Your task to perform on an android device: change text size in settings app Image 0: 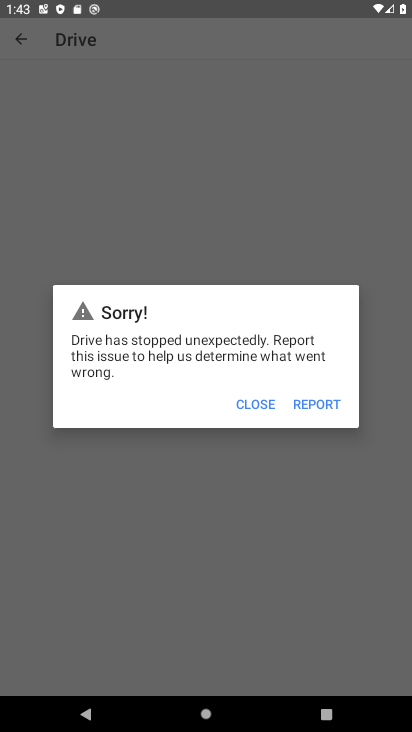
Step 0: press home button
Your task to perform on an android device: change text size in settings app Image 1: 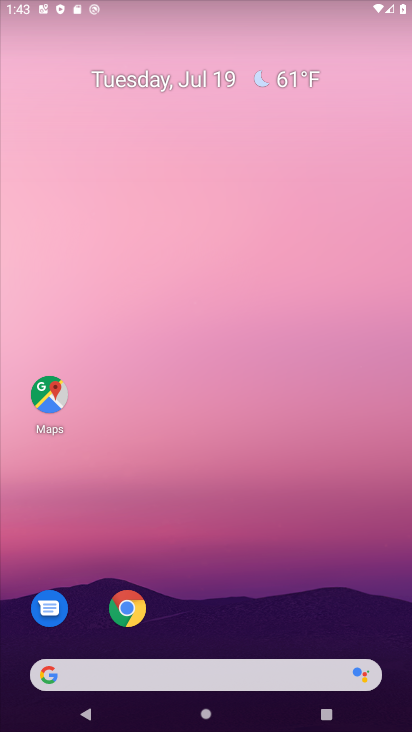
Step 1: drag from (243, 645) to (373, 0)
Your task to perform on an android device: change text size in settings app Image 2: 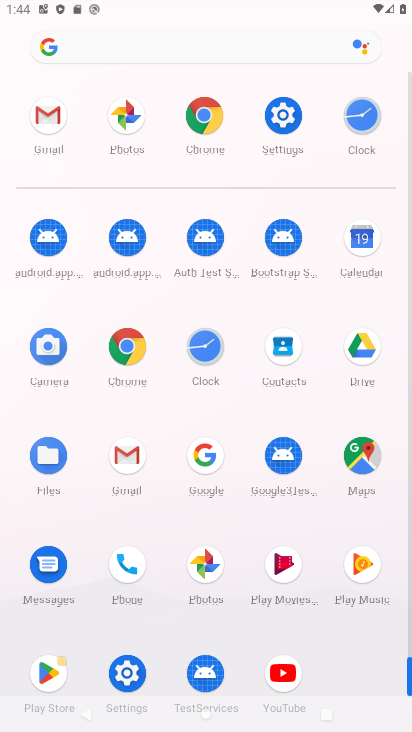
Step 2: click (254, 141)
Your task to perform on an android device: change text size in settings app Image 3: 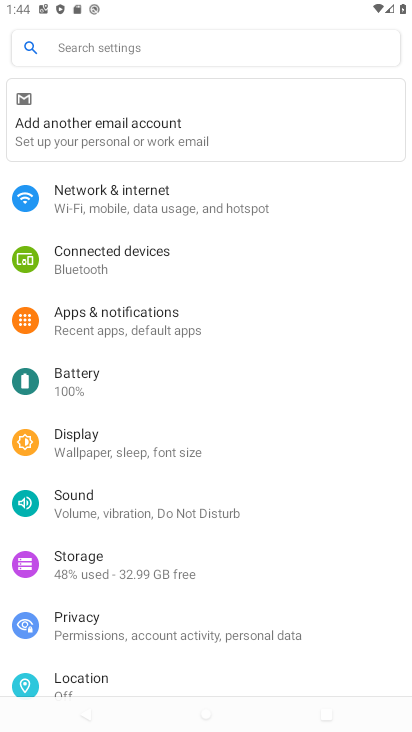
Step 3: click (111, 446)
Your task to perform on an android device: change text size in settings app Image 4: 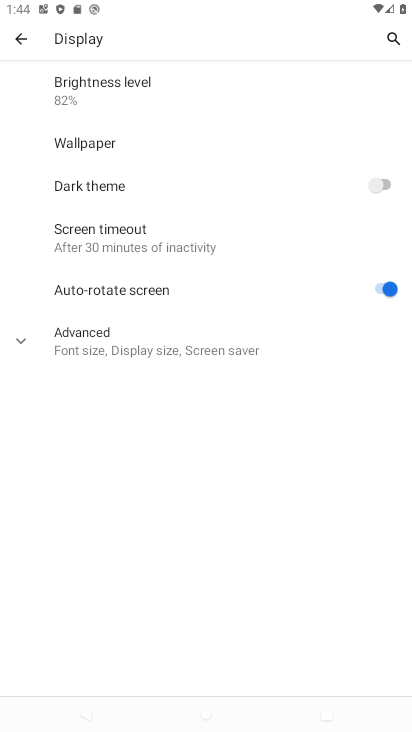
Step 4: click (126, 352)
Your task to perform on an android device: change text size in settings app Image 5: 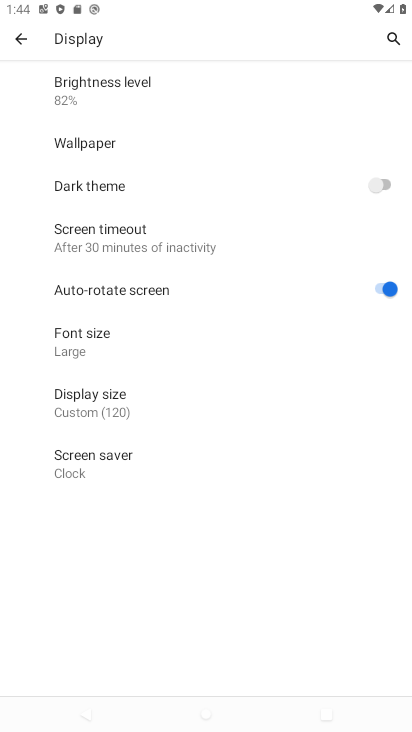
Step 5: click (78, 337)
Your task to perform on an android device: change text size in settings app Image 6: 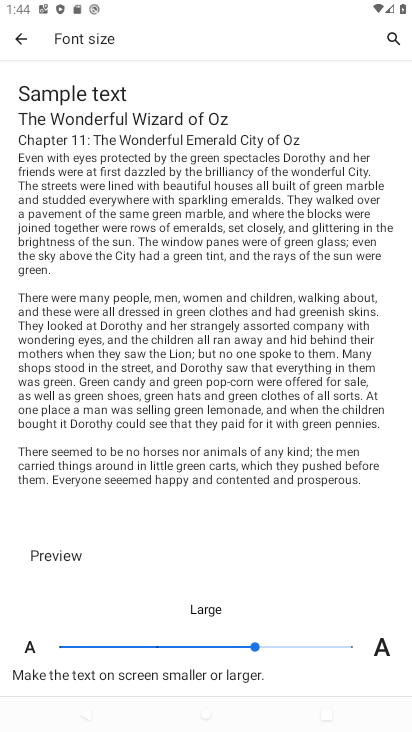
Step 6: click (297, 651)
Your task to perform on an android device: change text size in settings app Image 7: 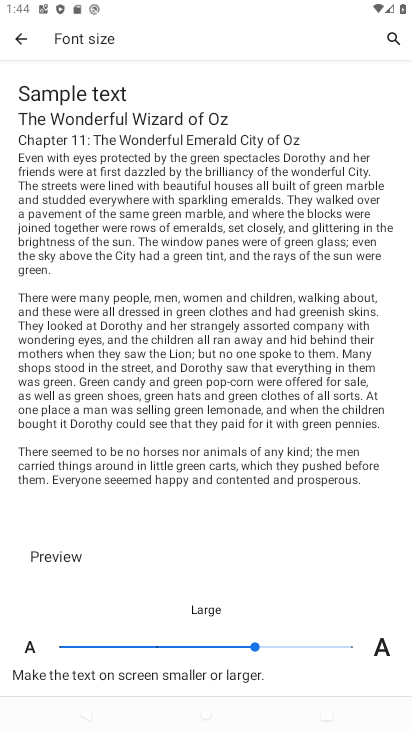
Step 7: click (295, 646)
Your task to perform on an android device: change text size in settings app Image 8: 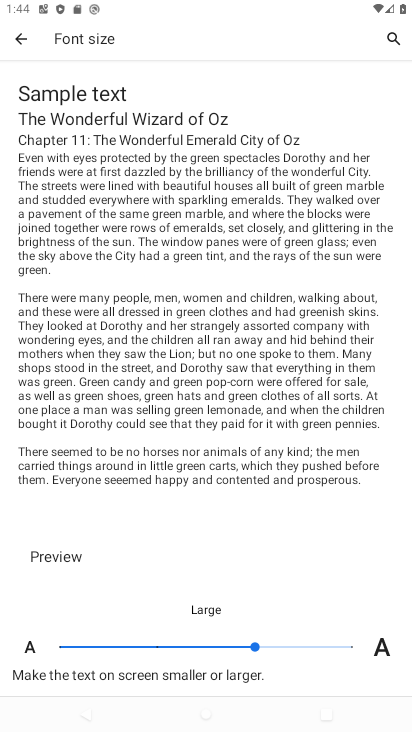
Step 8: task complete